Your task to perform on an android device: Empty the shopping cart on walmart. Add "sony triple a" to the cart on walmart Image 0: 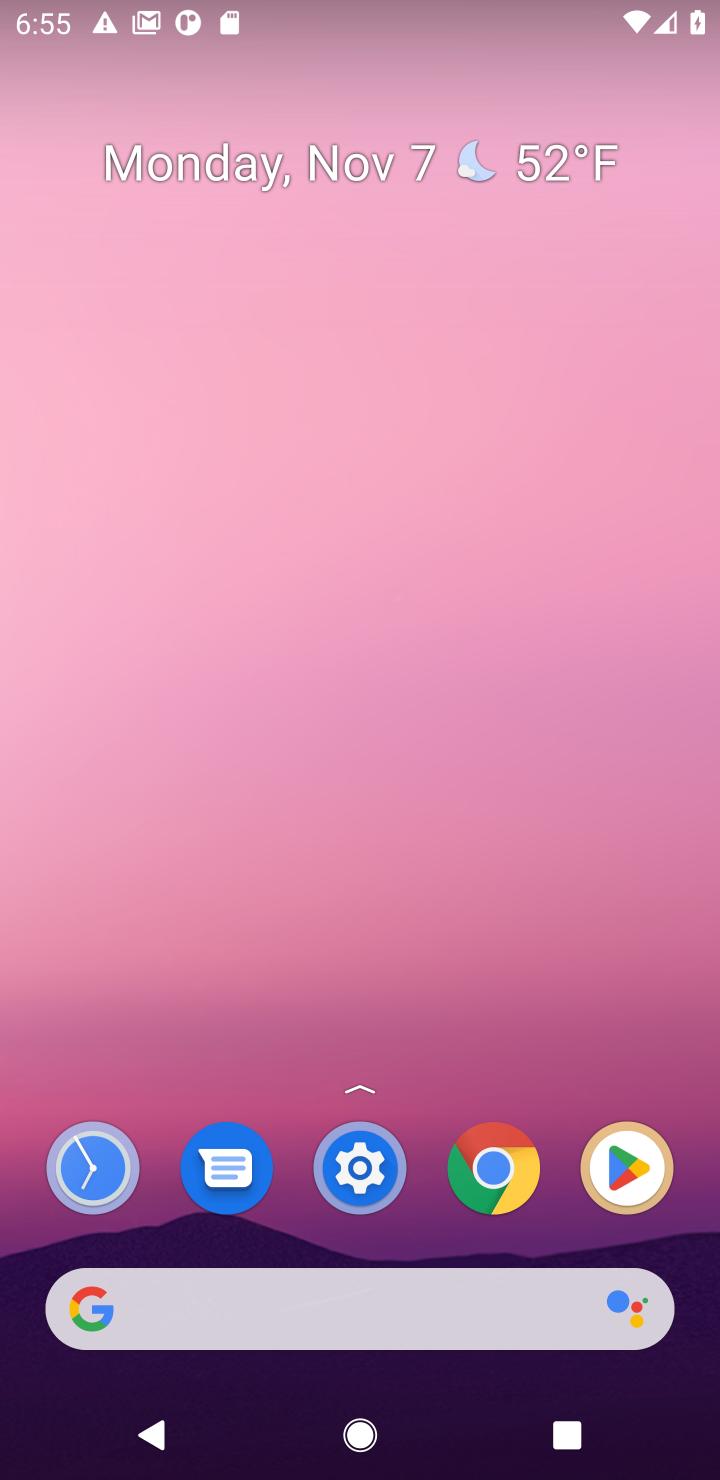
Step 0: click (322, 1309)
Your task to perform on an android device: Empty the shopping cart on walmart. Add "sony triple a" to the cart on walmart Image 1: 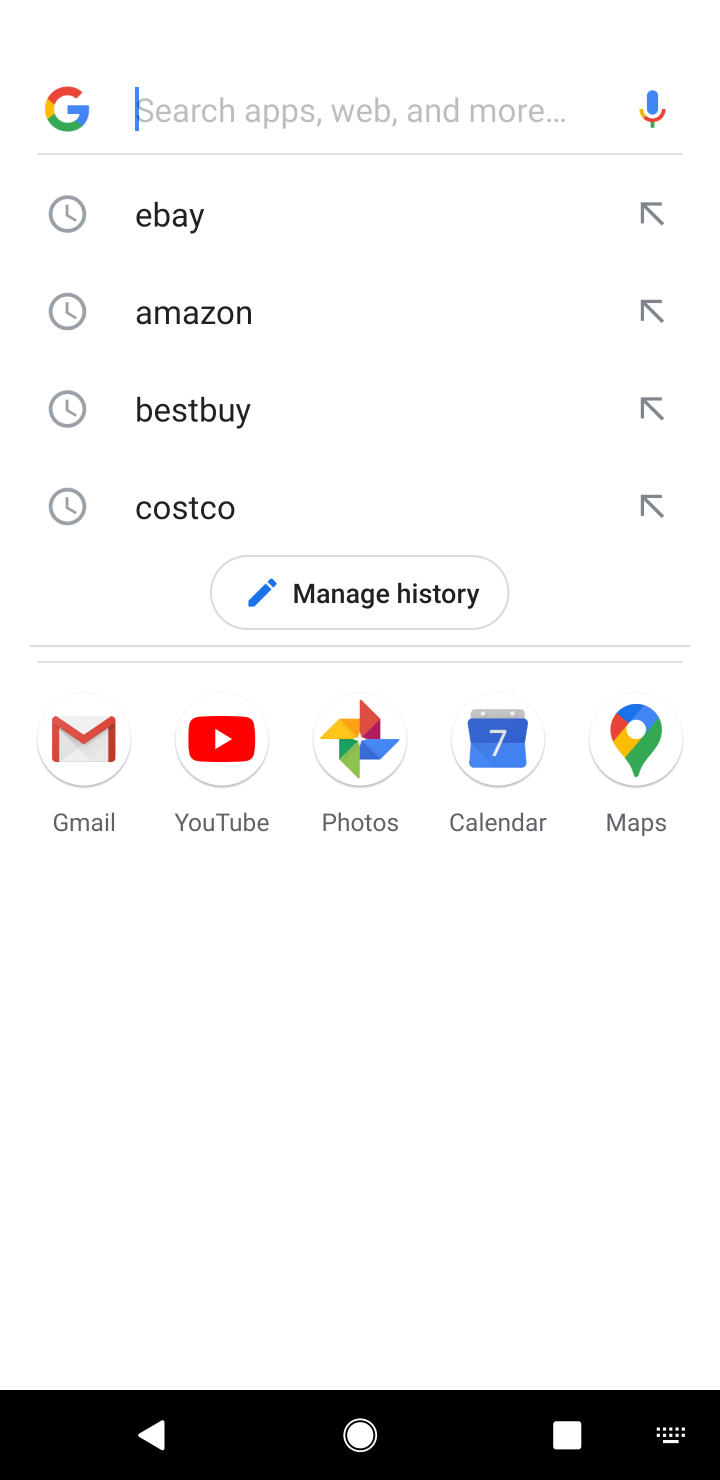
Step 1: type "walmart"
Your task to perform on an android device: Empty the shopping cart on walmart. Add "sony triple a" to the cart on walmart Image 2: 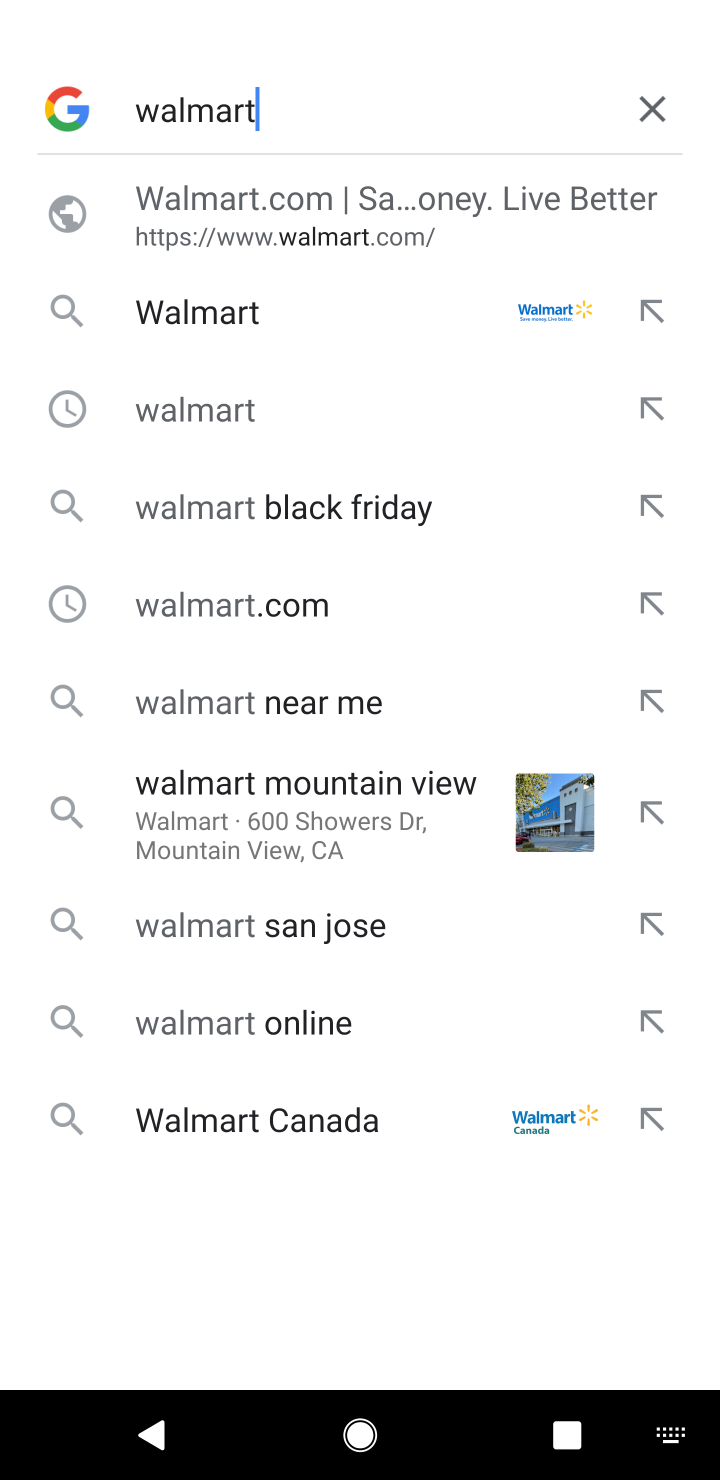
Step 2: type ""
Your task to perform on an android device: Empty the shopping cart on walmart. Add "sony triple a" to the cart on walmart Image 3: 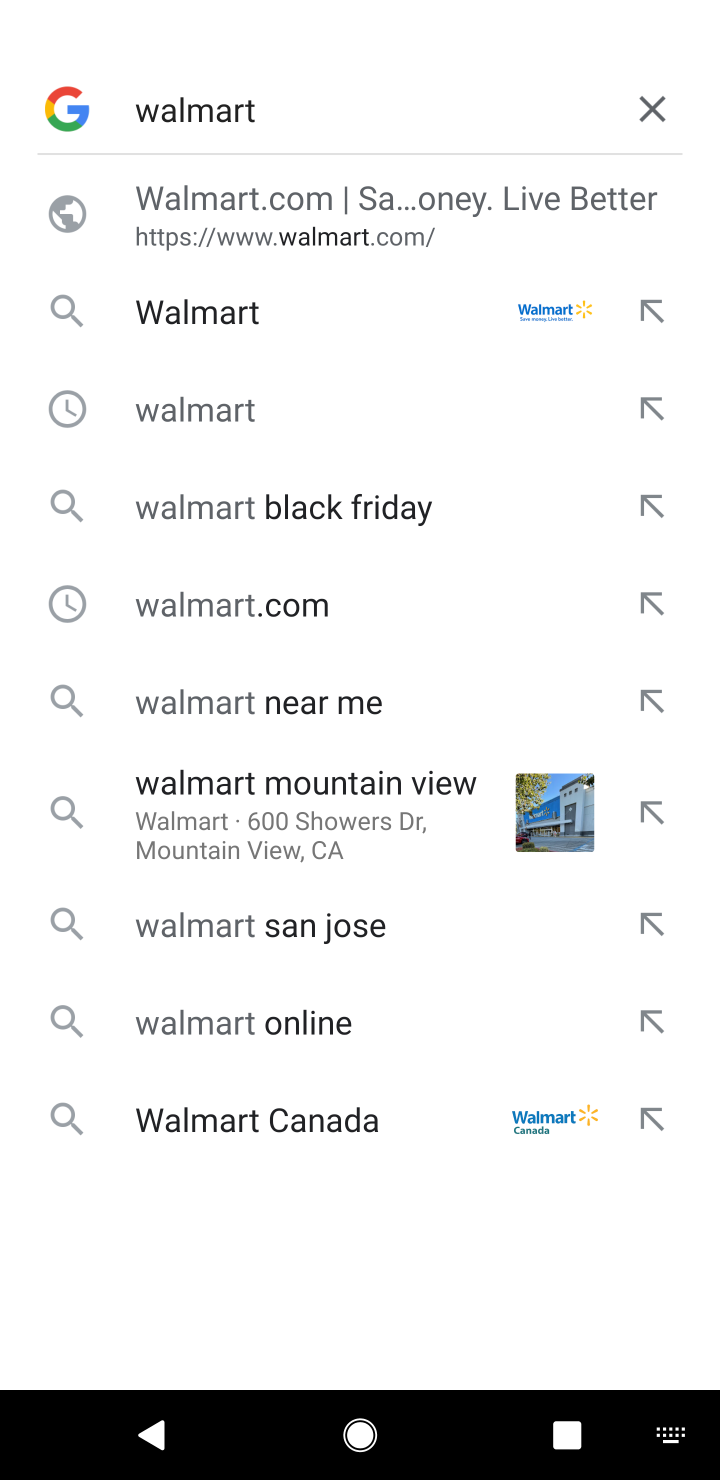
Step 3: press enter
Your task to perform on an android device: Empty the shopping cart on walmart. Add "sony triple a" to the cart on walmart Image 4: 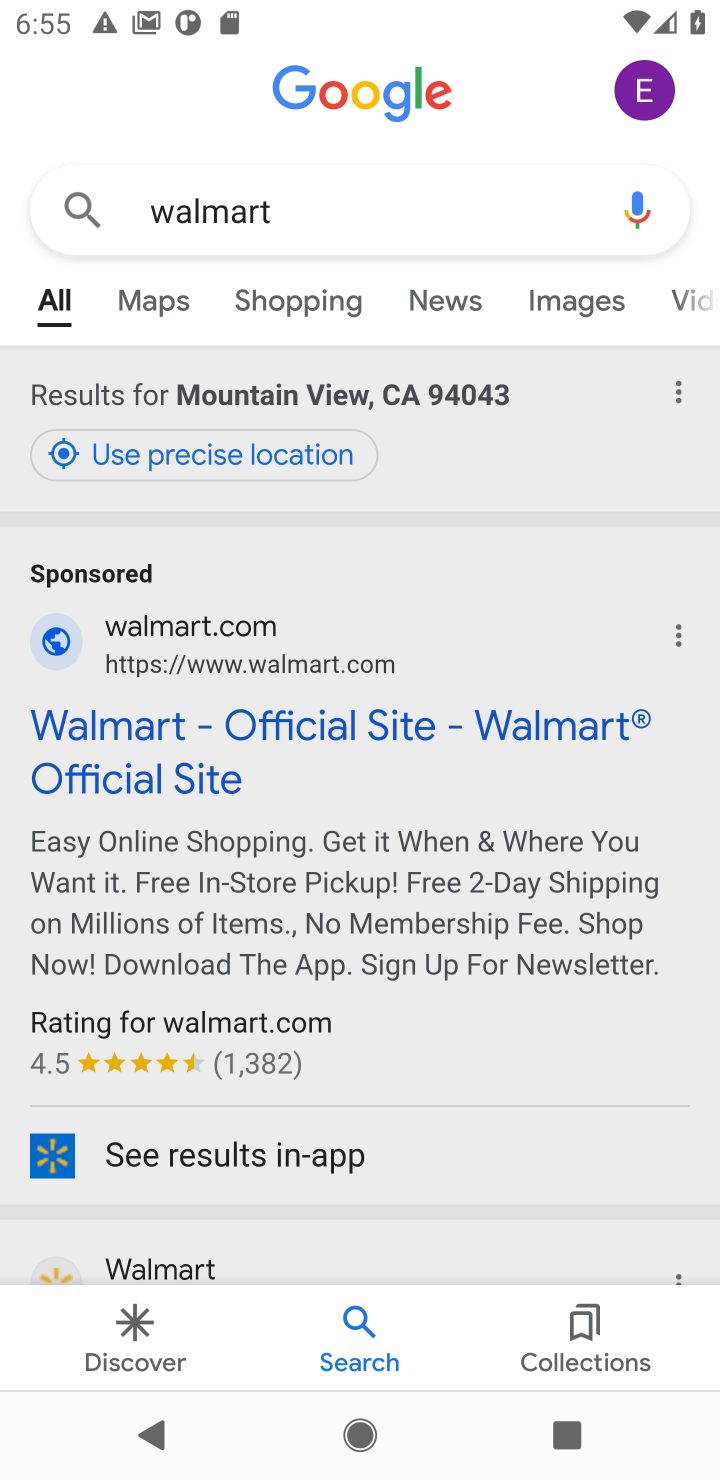
Step 4: click (249, 717)
Your task to perform on an android device: Empty the shopping cart on walmart. Add "sony triple a" to the cart on walmart Image 5: 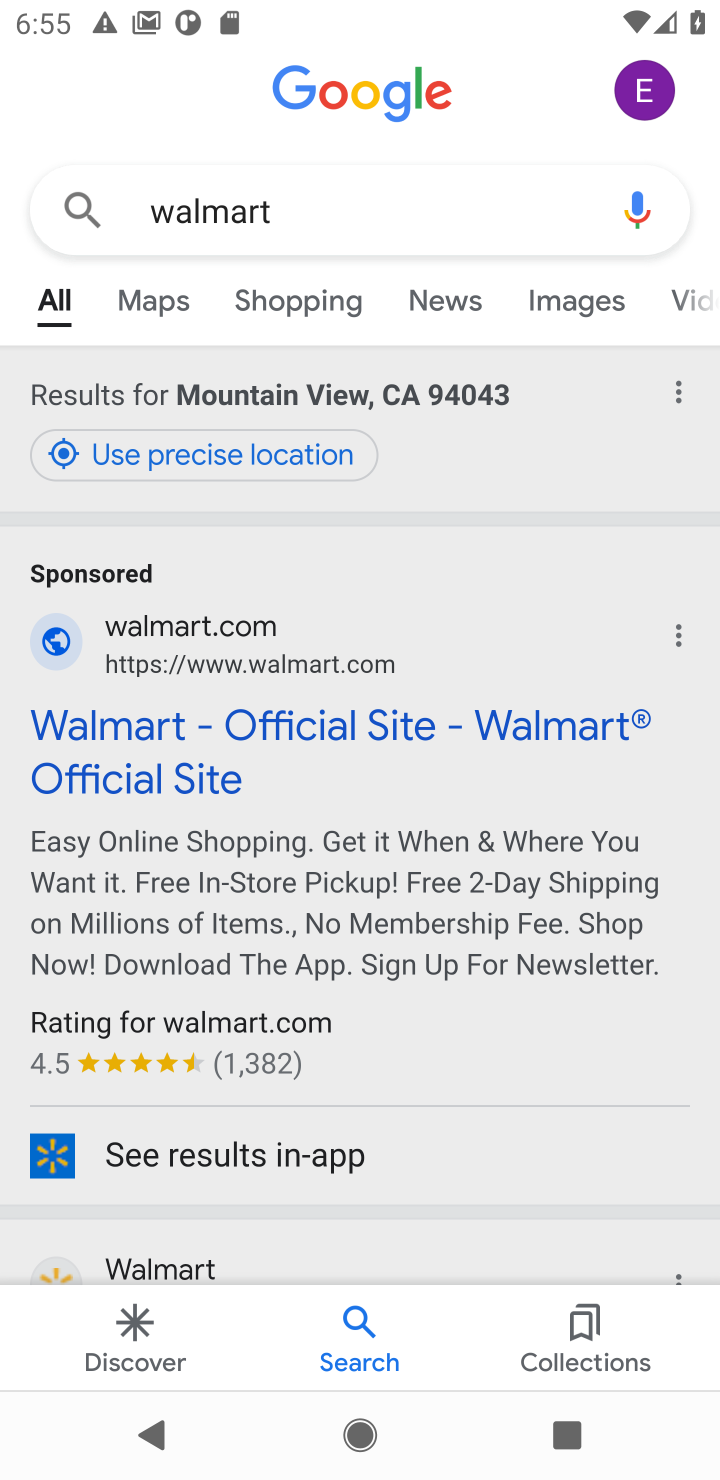
Step 5: click (249, 719)
Your task to perform on an android device: Empty the shopping cart on walmart. Add "sony triple a" to the cart on walmart Image 6: 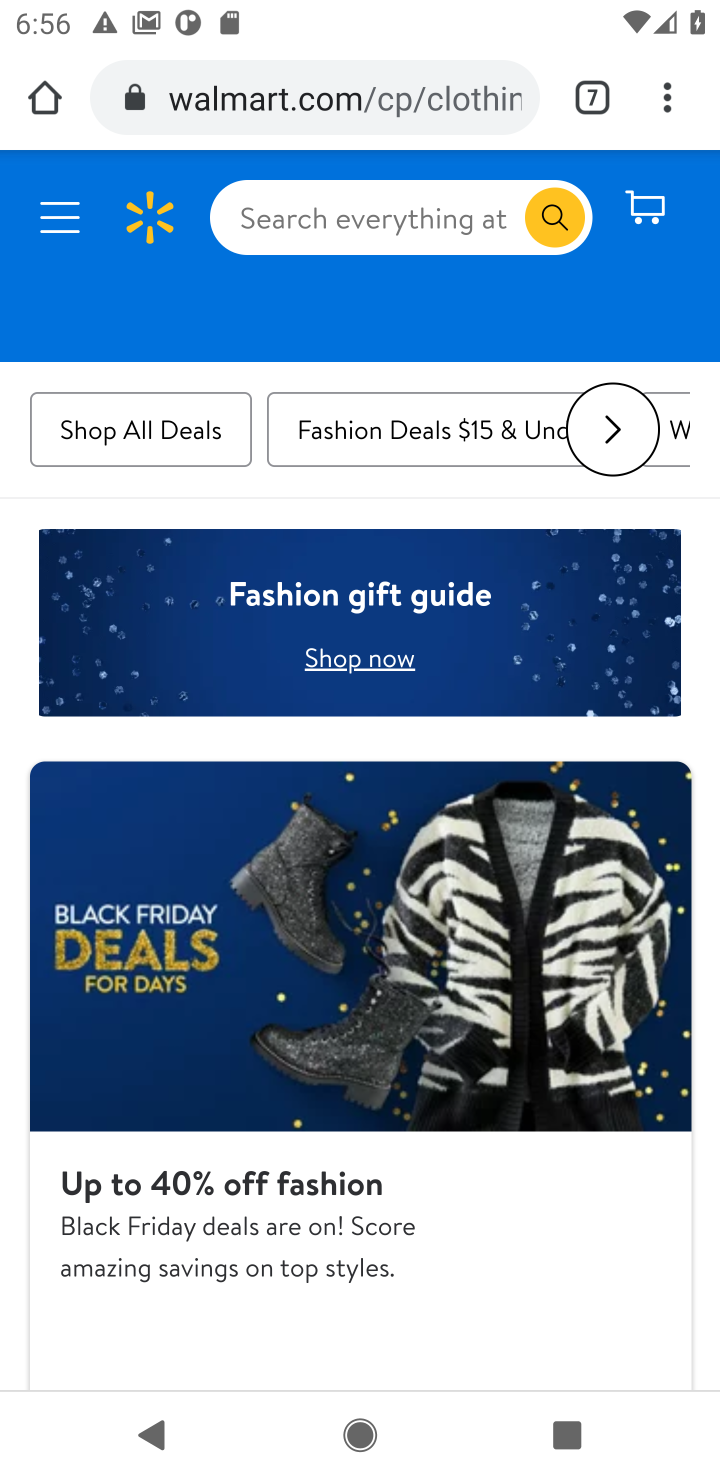
Step 6: click (389, 202)
Your task to perform on an android device: Empty the shopping cart on walmart. Add "sony triple a" to the cart on walmart Image 7: 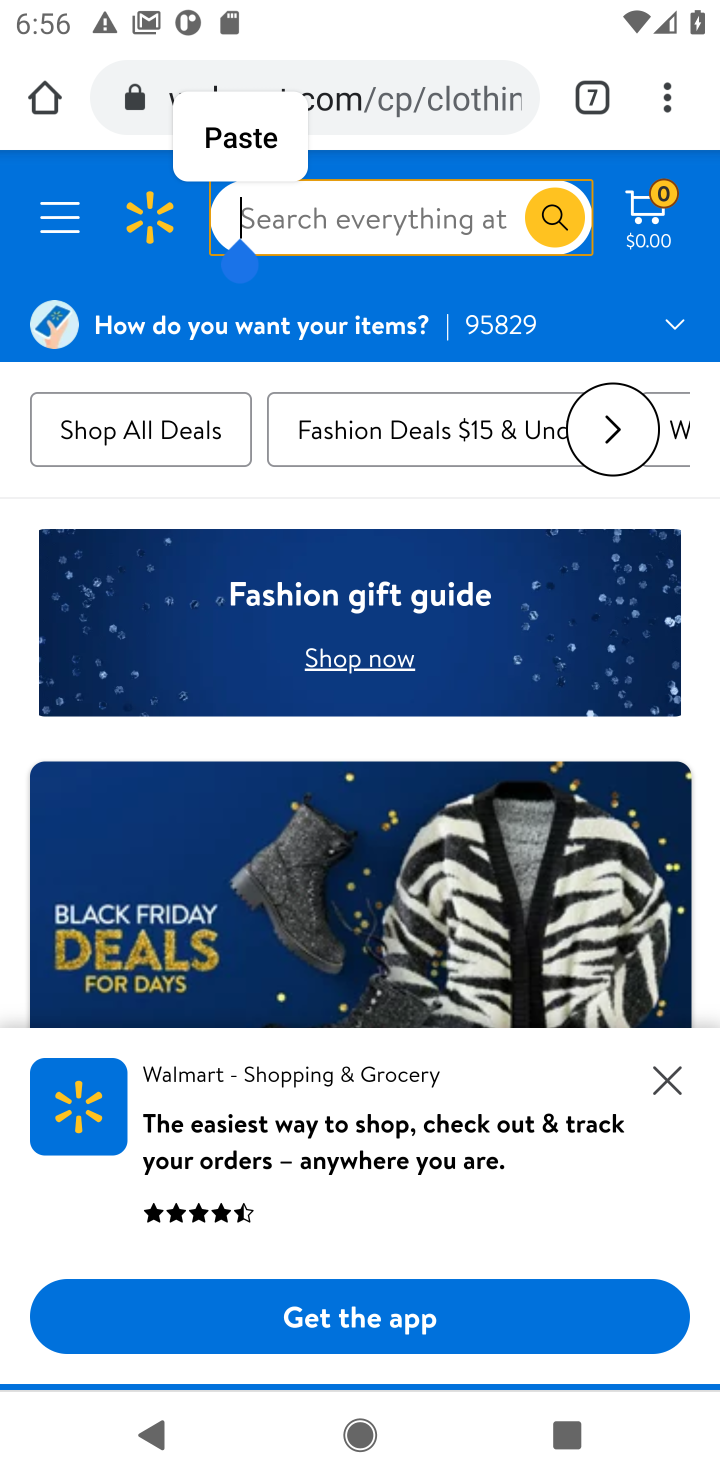
Step 7: type "sony triple a"
Your task to perform on an android device: Empty the shopping cart on walmart. Add "sony triple a" to the cart on walmart Image 8: 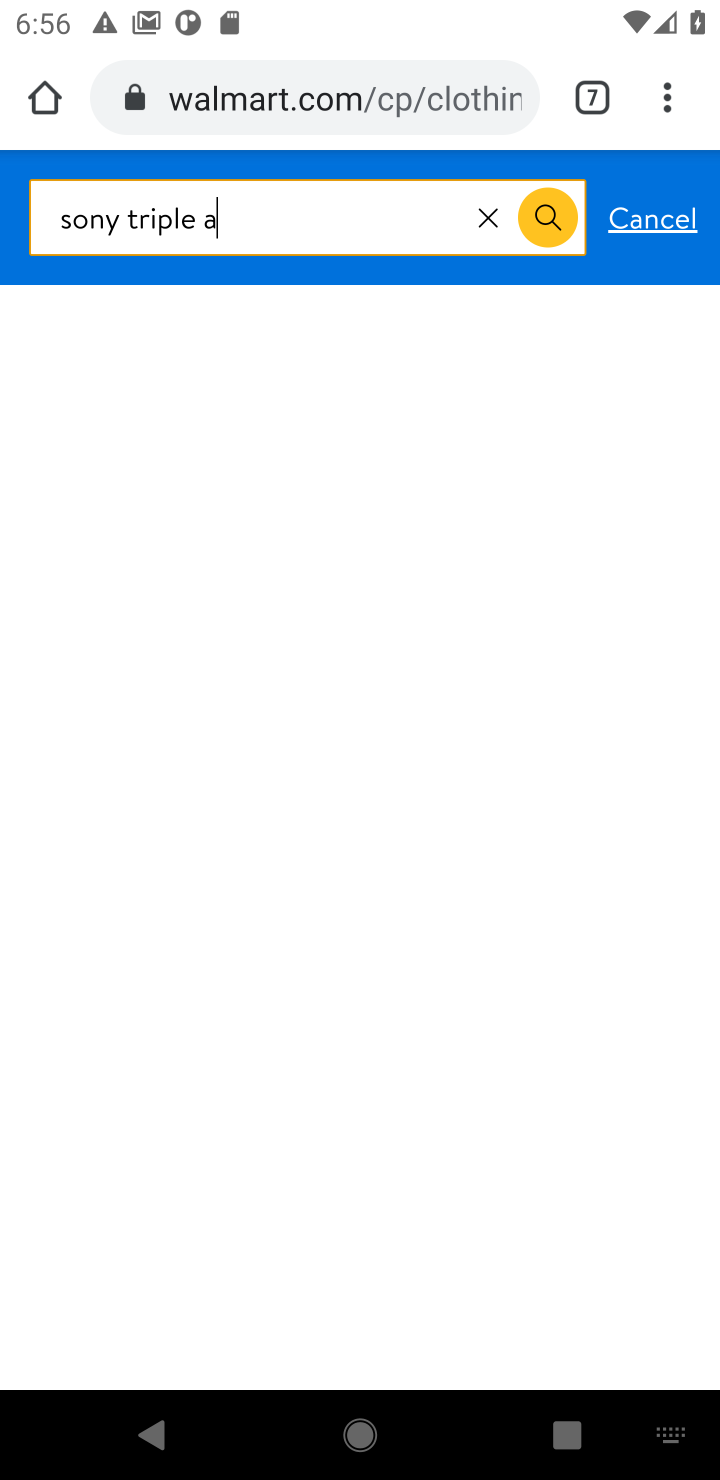
Step 8: type ""
Your task to perform on an android device: Empty the shopping cart on walmart. Add "sony triple a" to the cart on walmart Image 9: 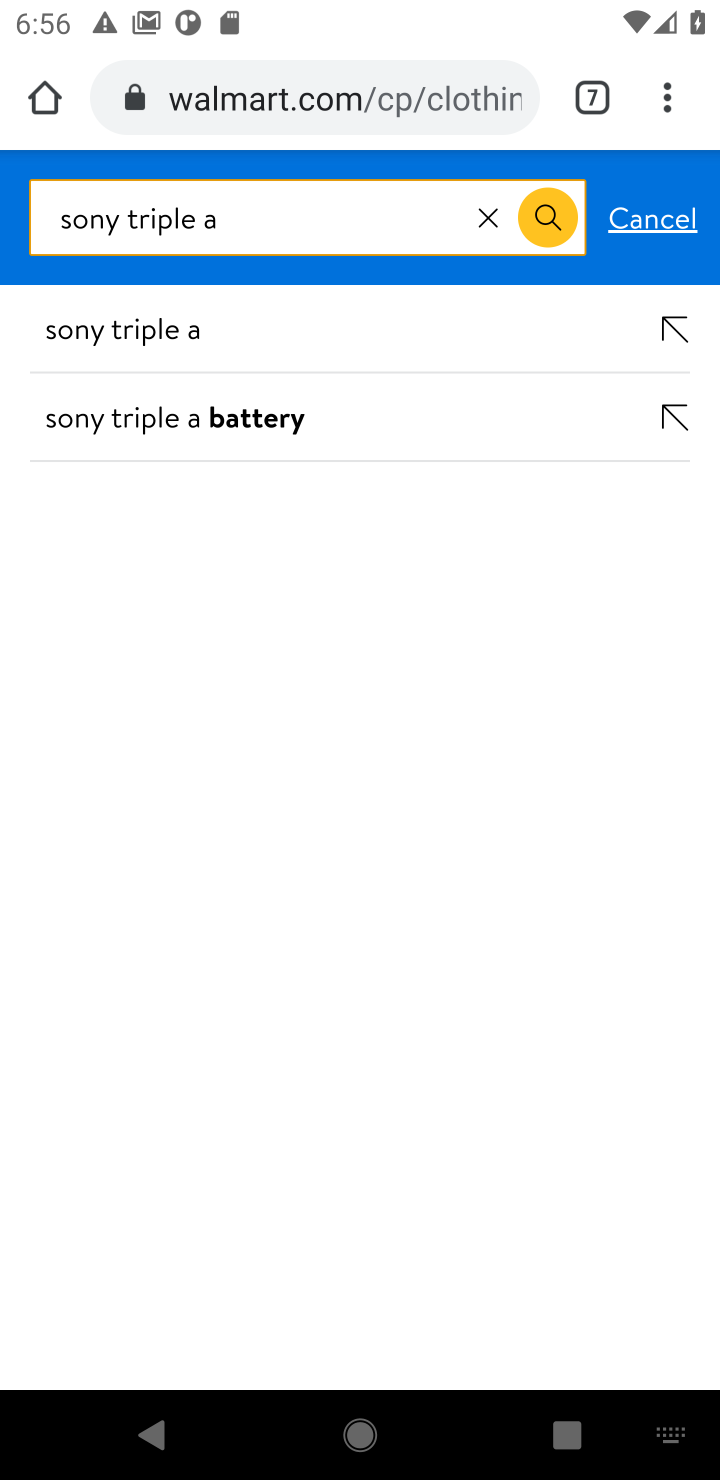
Step 9: press enter
Your task to perform on an android device: Empty the shopping cart on walmart. Add "sony triple a" to the cart on walmart Image 10: 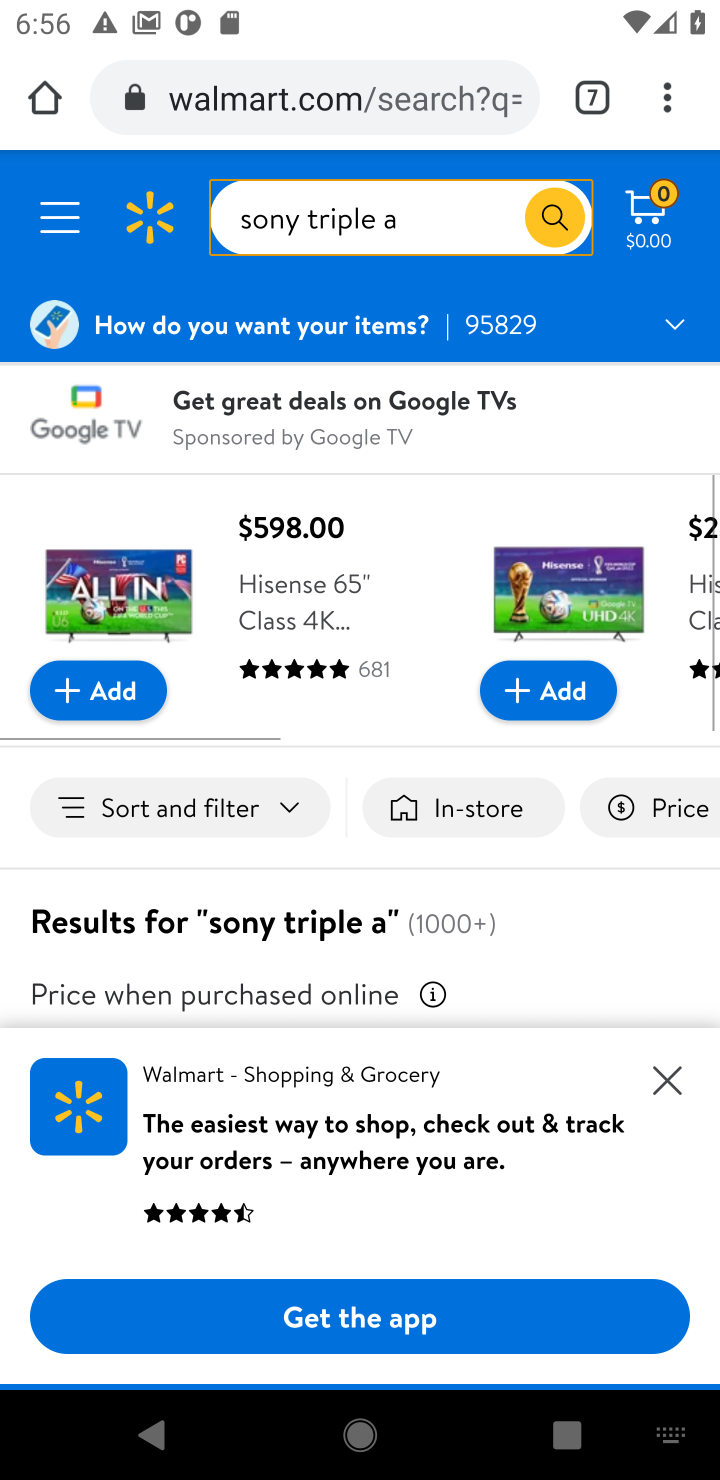
Step 10: click (677, 1079)
Your task to perform on an android device: Empty the shopping cart on walmart. Add "sony triple a" to the cart on walmart Image 11: 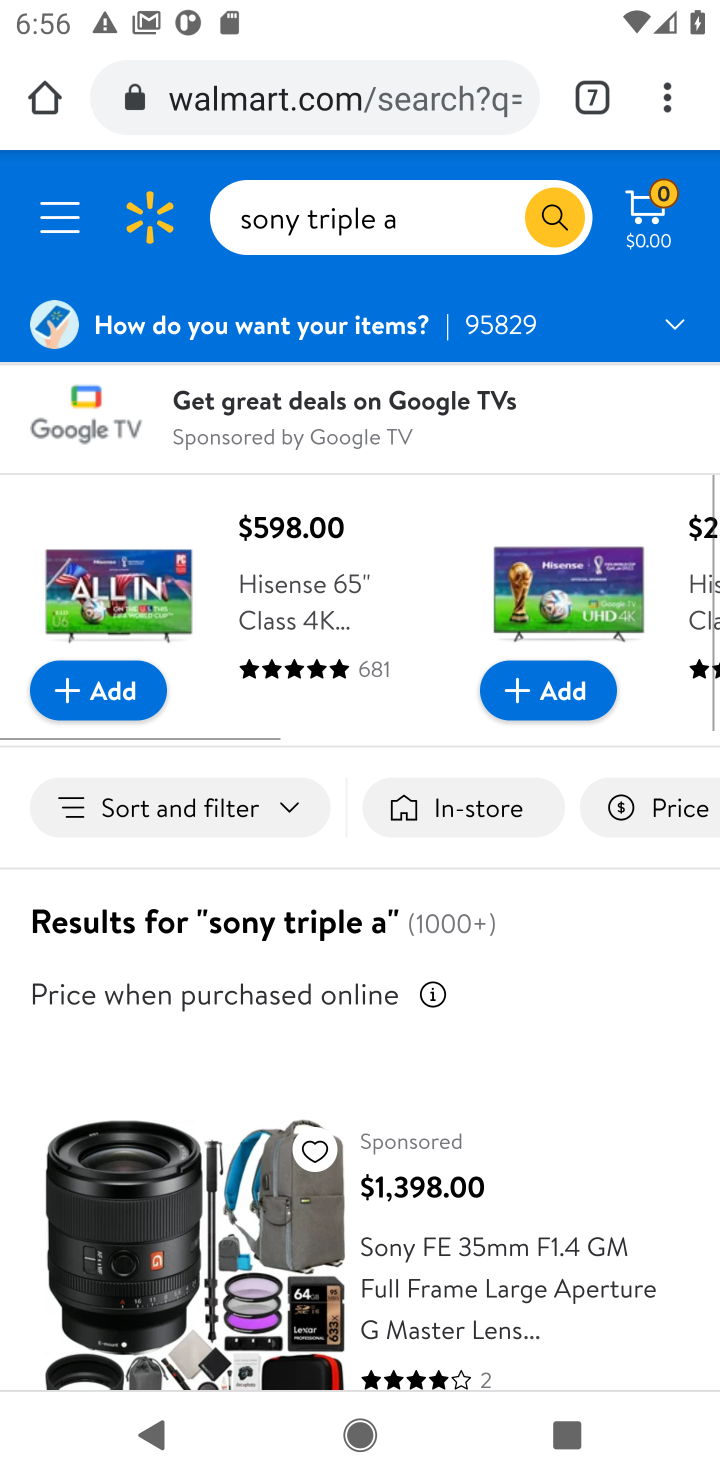
Step 11: click (270, 579)
Your task to perform on an android device: Empty the shopping cart on walmart. Add "sony triple a" to the cart on walmart Image 12: 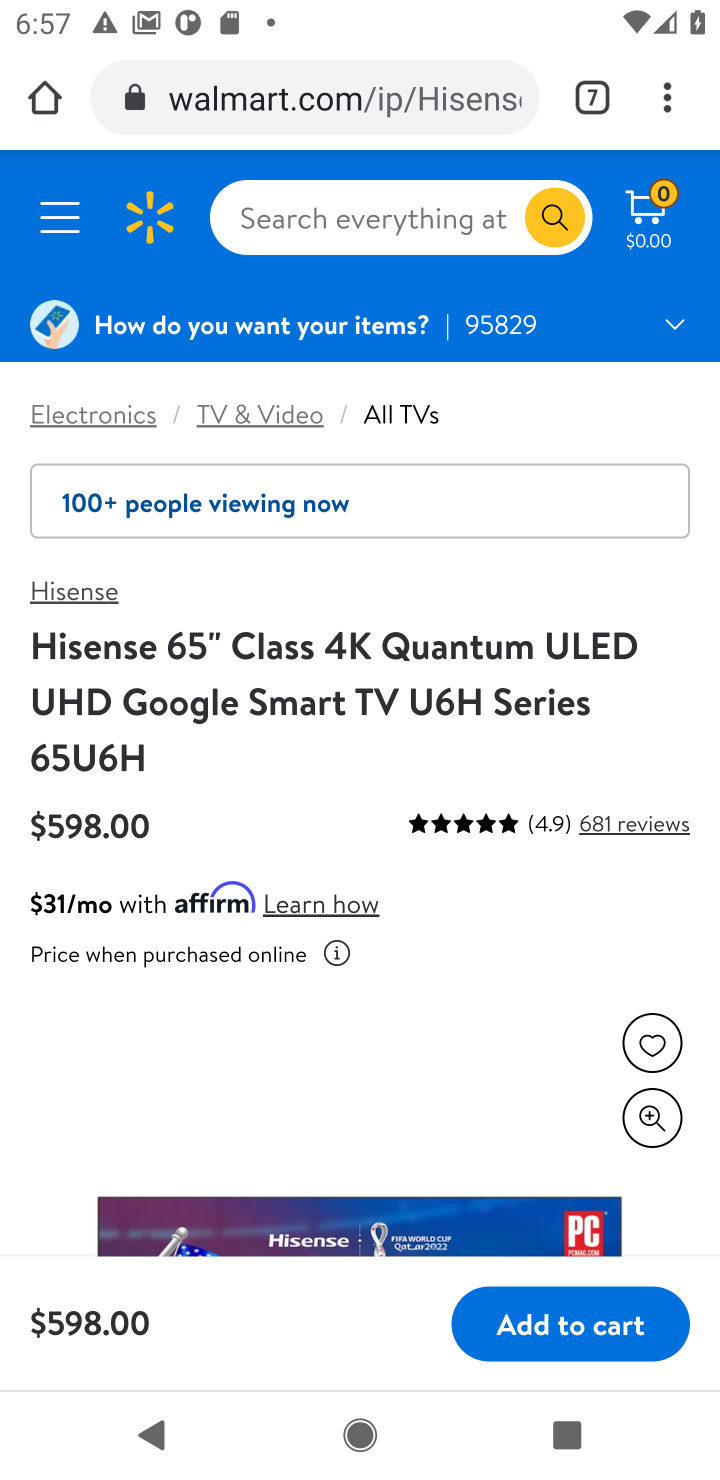
Step 12: drag from (372, 1129) to (316, 869)
Your task to perform on an android device: Empty the shopping cart on walmart. Add "sony triple a" to the cart on walmart Image 13: 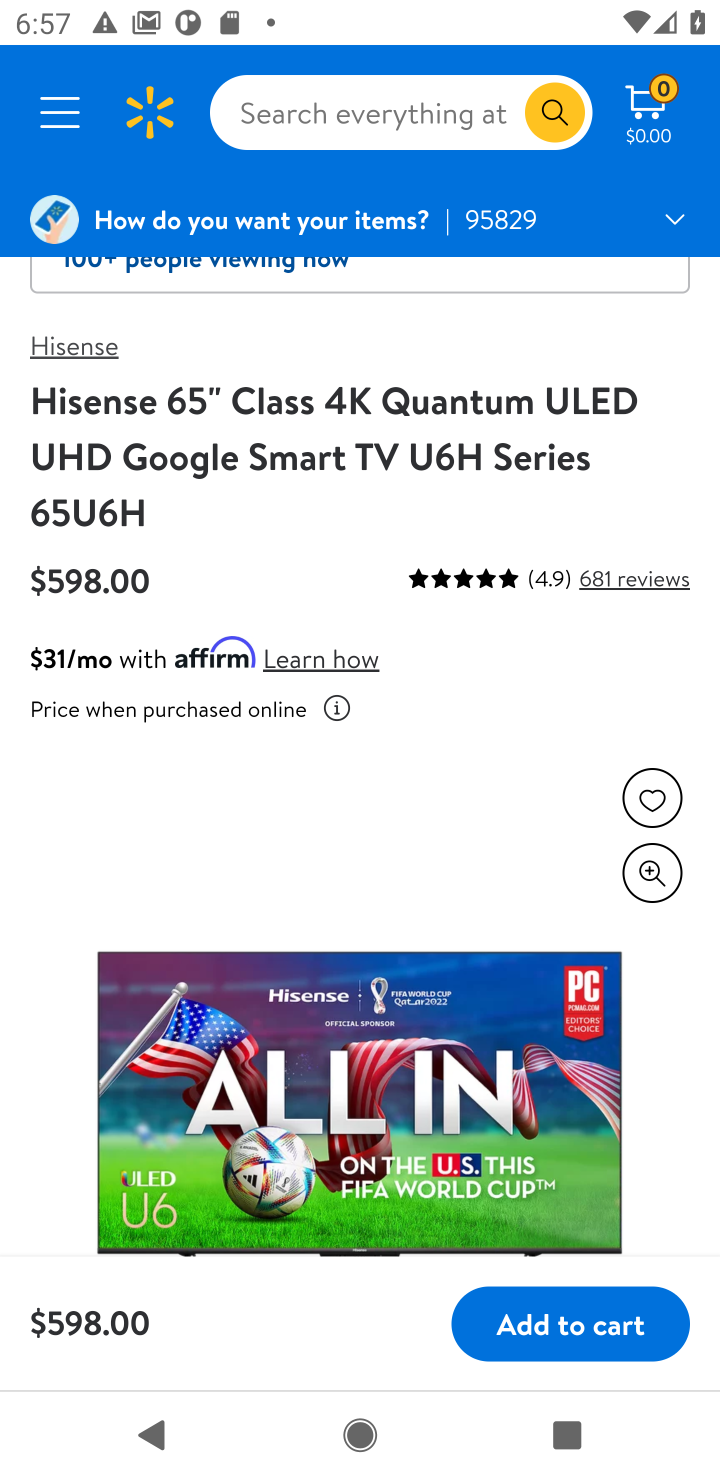
Step 13: click (562, 1311)
Your task to perform on an android device: Empty the shopping cart on walmart. Add "sony triple a" to the cart on walmart Image 14: 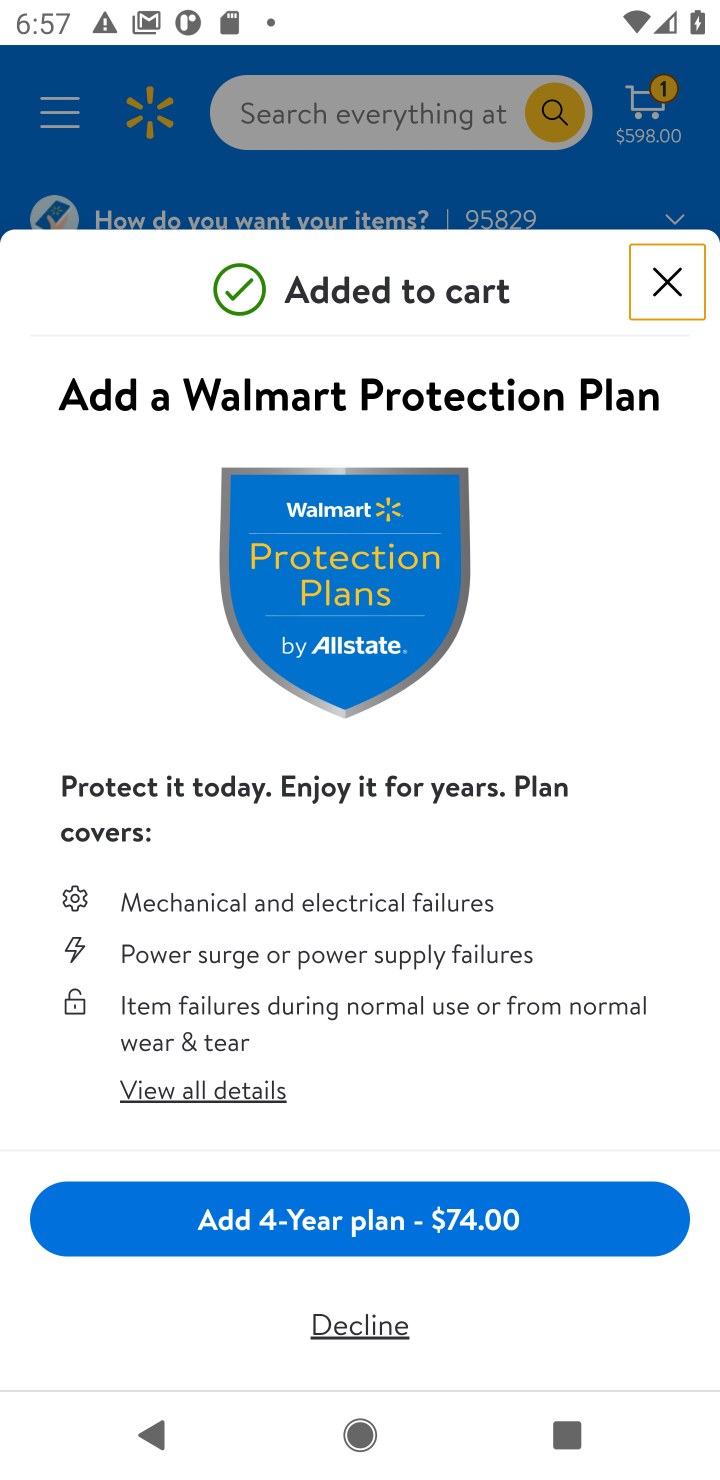
Step 14: task complete